Your task to perform on an android device: turn off sleep mode Image 0: 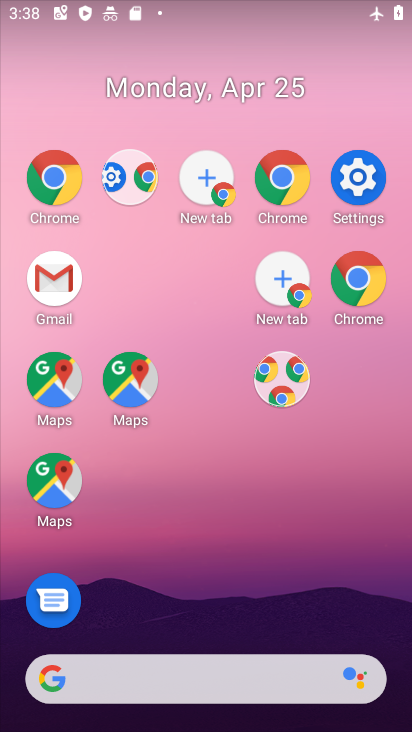
Step 0: drag from (308, 709) to (131, 160)
Your task to perform on an android device: turn off sleep mode Image 1: 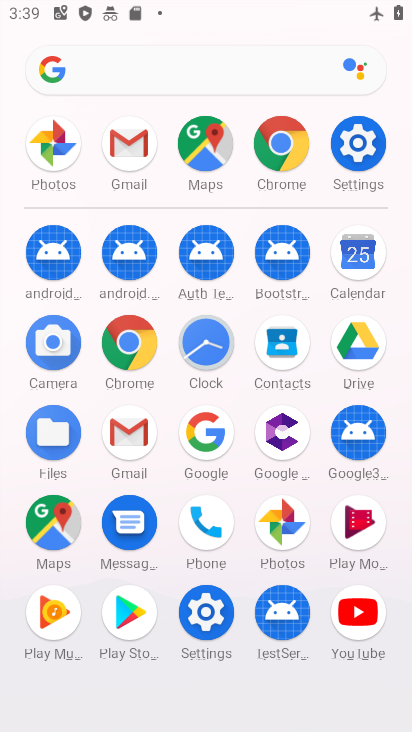
Step 1: click (355, 135)
Your task to perform on an android device: turn off sleep mode Image 2: 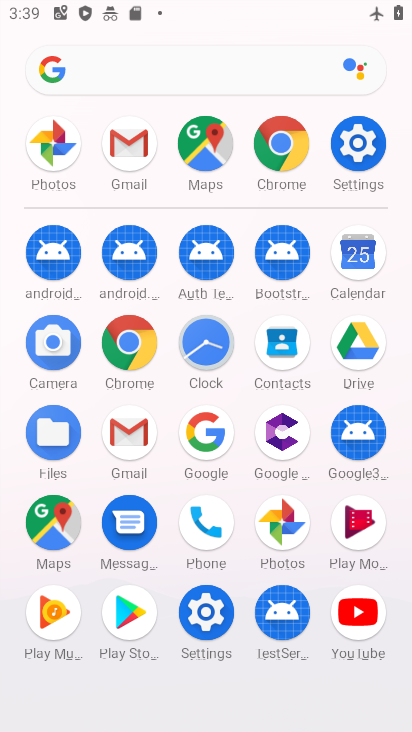
Step 2: click (355, 135)
Your task to perform on an android device: turn off sleep mode Image 3: 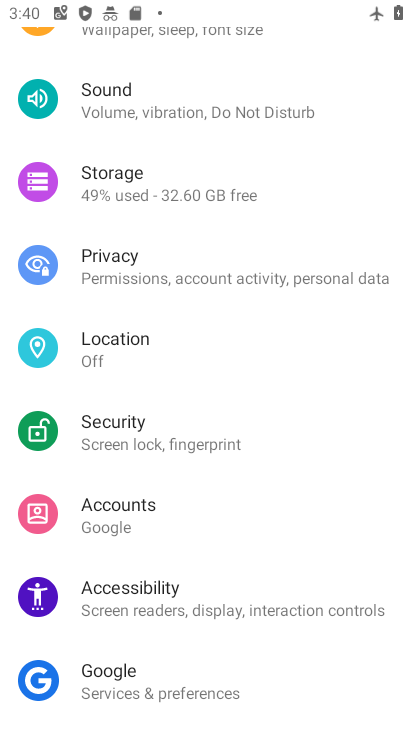
Step 3: drag from (128, 165) to (215, 575)
Your task to perform on an android device: turn off sleep mode Image 4: 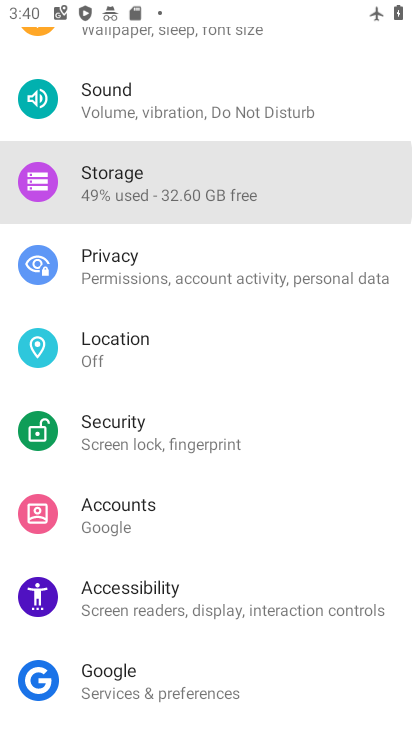
Step 4: drag from (147, 316) to (106, 563)
Your task to perform on an android device: turn off sleep mode Image 5: 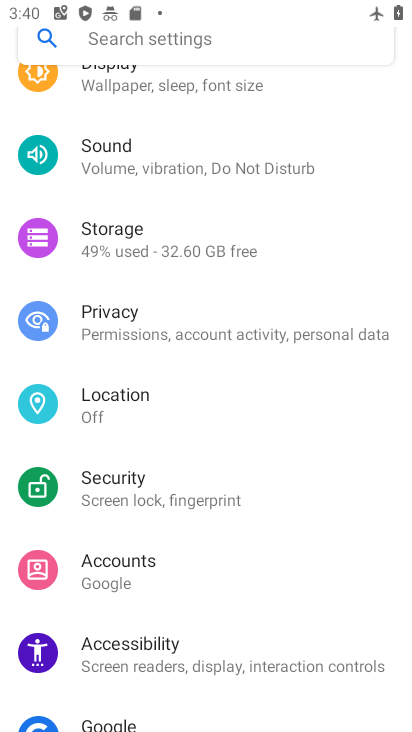
Step 5: drag from (141, 379) to (184, 620)
Your task to perform on an android device: turn off sleep mode Image 6: 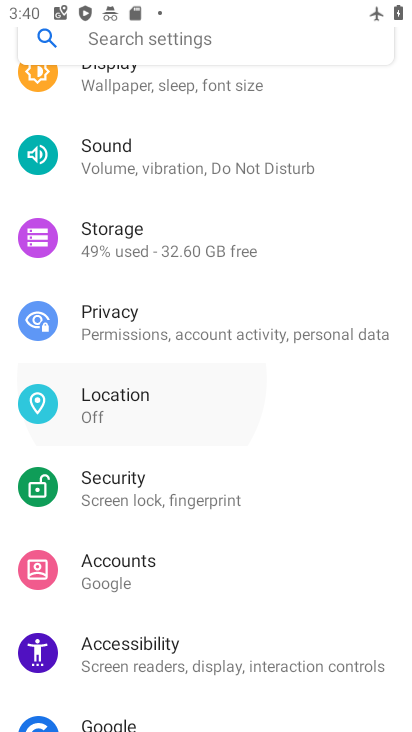
Step 6: drag from (126, 396) to (129, 684)
Your task to perform on an android device: turn off sleep mode Image 7: 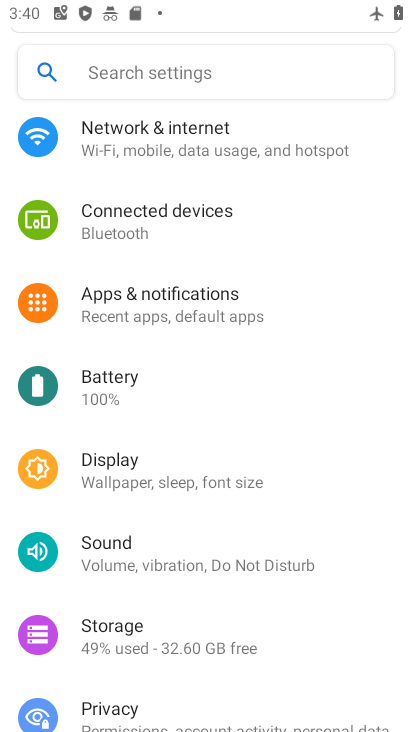
Step 7: click (110, 478)
Your task to perform on an android device: turn off sleep mode Image 8: 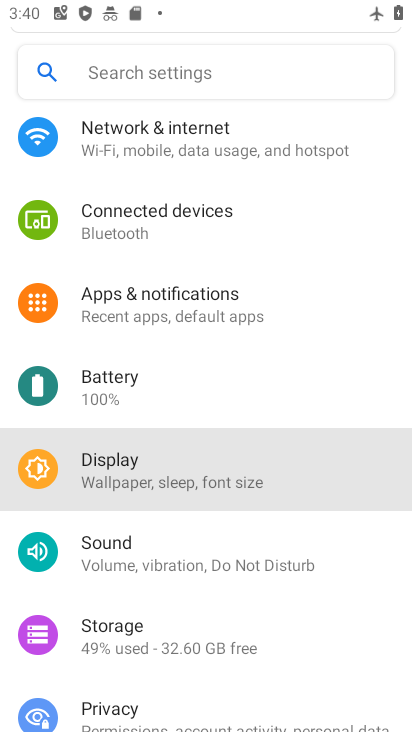
Step 8: click (111, 478)
Your task to perform on an android device: turn off sleep mode Image 9: 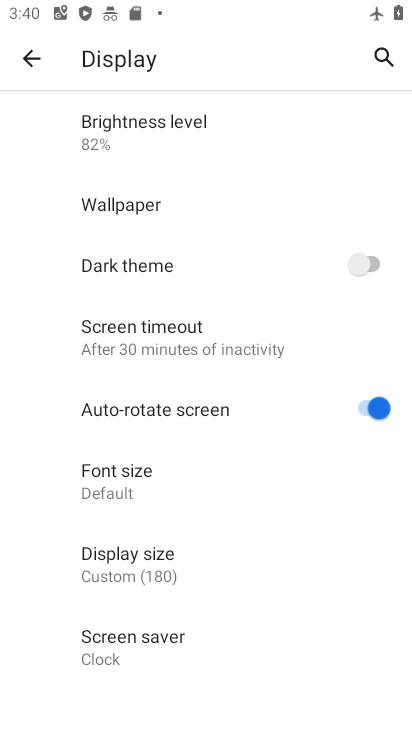
Step 9: drag from (164, 536) to (127, 39)
Your task to perform on an android device: turn off sleep mode Image 10: 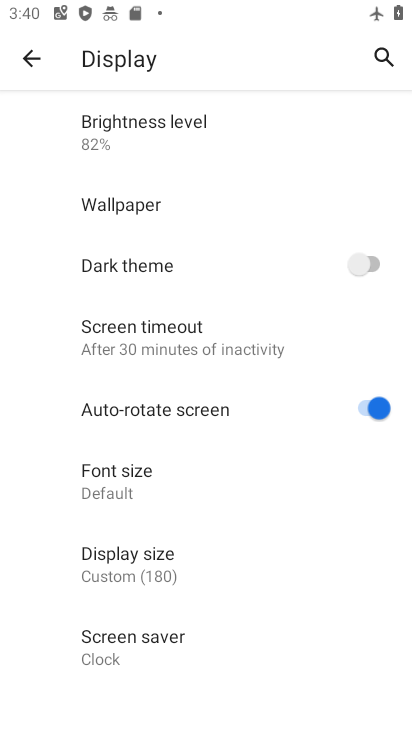
Step 10: click (24, 60)
Your task to perform on an android device: turn off sleep mode Image 11: 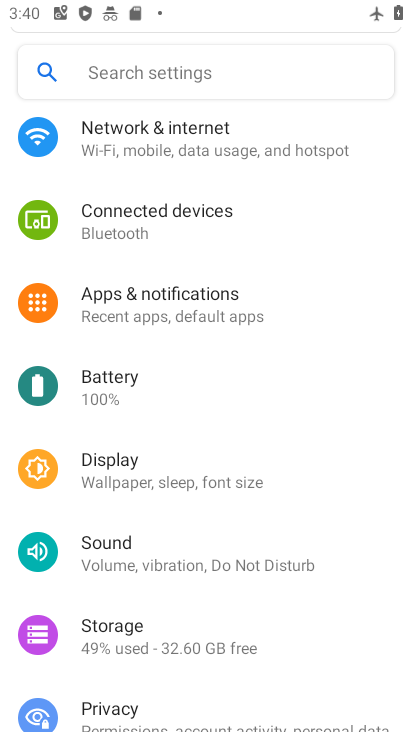
Step 11: task complete